Your task to perform on an android device: What's the weather today? Image 0: 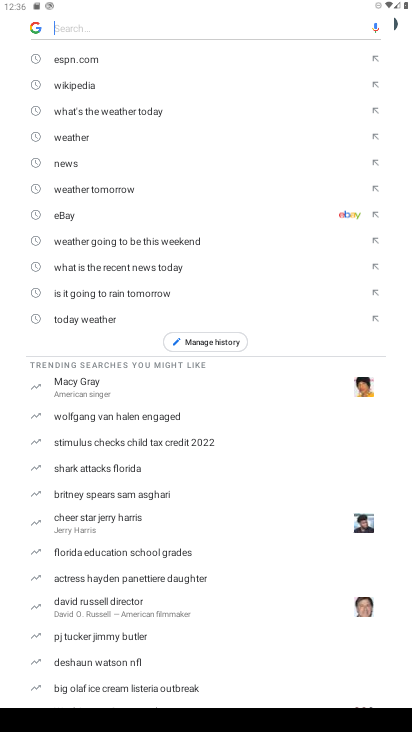
Step 0: press back button
Your task to perform on an android device: What's the weather today? Image 1: 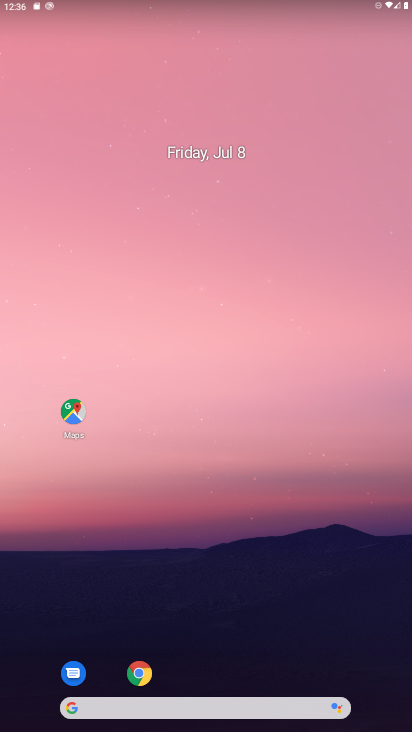
Step 1: task complete